Your task to perform on an android device: Open privacy settings Image 0: 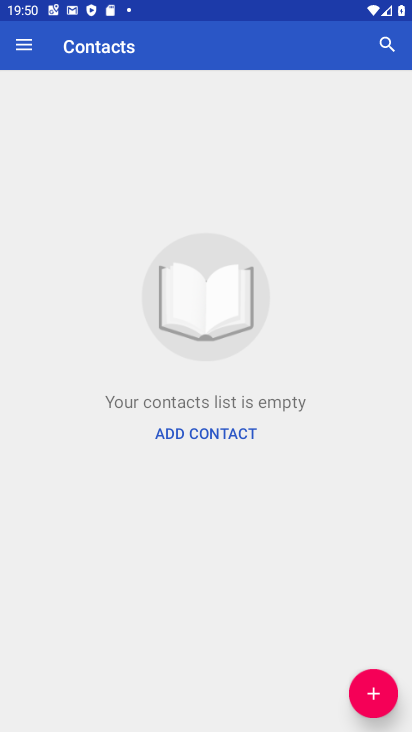
Step 0: press home button
Your task to perform on an android device: Open privacy settings Image 1: 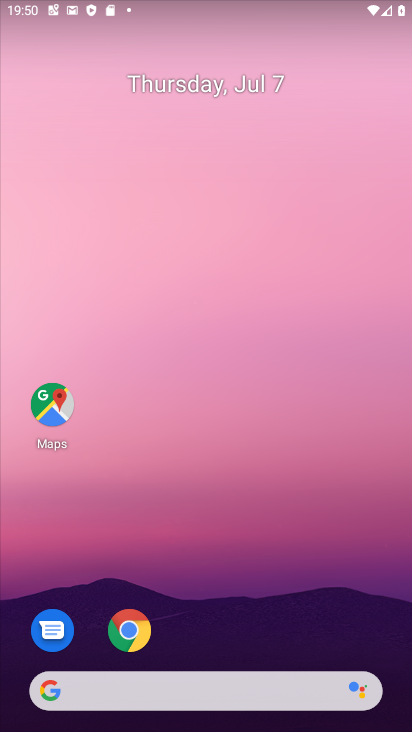
Step 1: drag from (295, 656) to (243, 168)
Your task to perform on an android device: Open privacy settings Image 2: 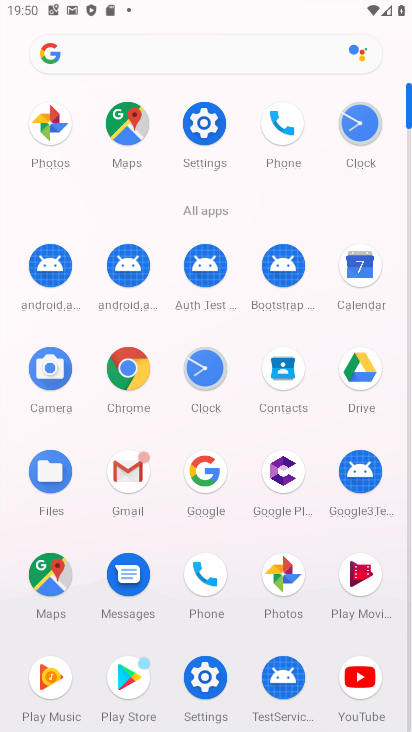
Step 2: click (209, 127)
Your task to perform on an android device: Open privacy settings Image 3: 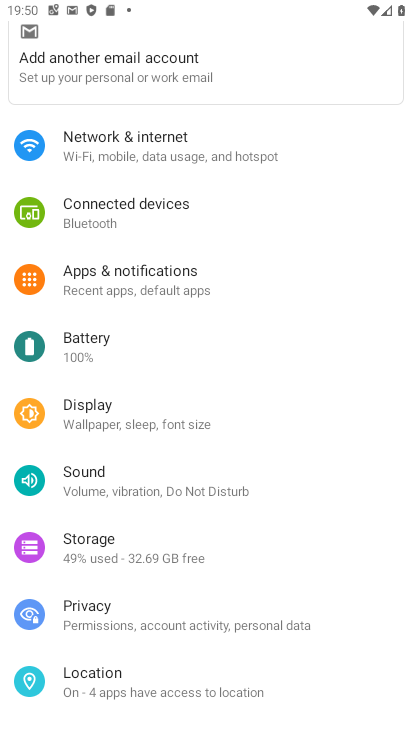
Step 3: click (106, 611)
Your task to perform on an android device: Open privacy settings Image 4: 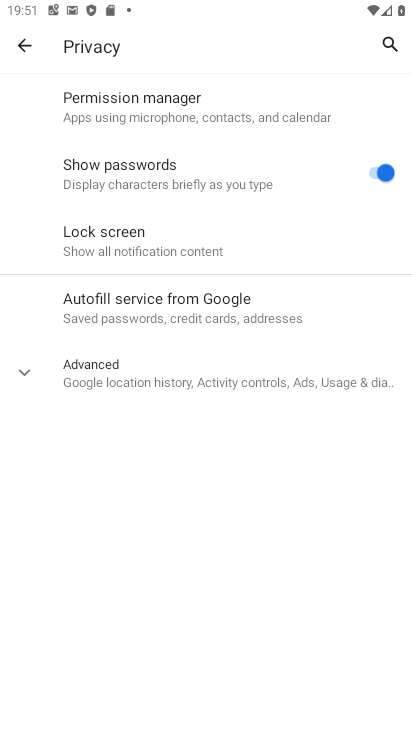
Step 4: task complete